Your task to perform on an android device: turn off javascript in the chrome app Image 0: 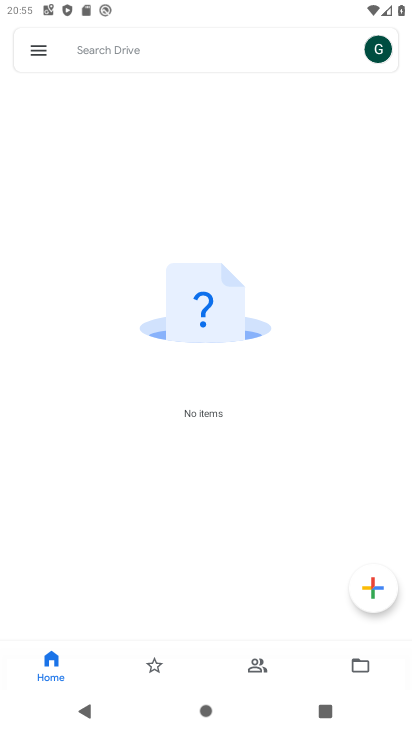
Step 0: press home button
Your task to perform on an android device: turn off javascript in the chrome app Image 1: 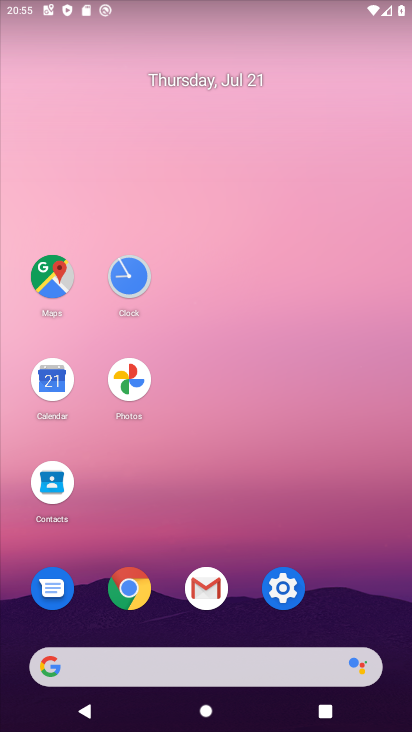
Step 1: click (130, 592)
Your task to perform on an android device: turn off javascript in the chrome app Image 2: 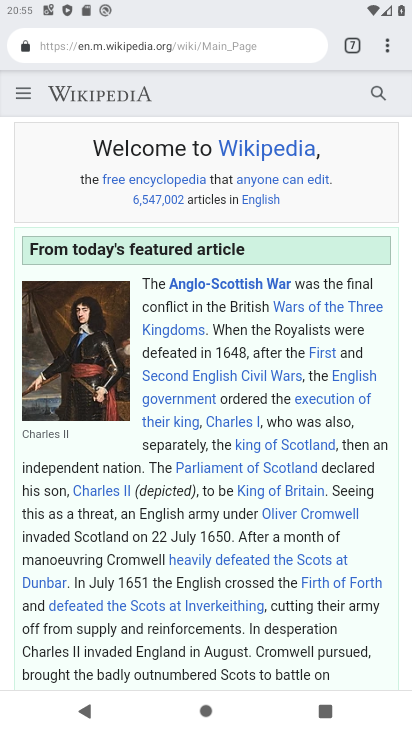
Step 2: click (389, 40)
Your task to perform on an android device: turn off javascript in the chrome app Image 3: 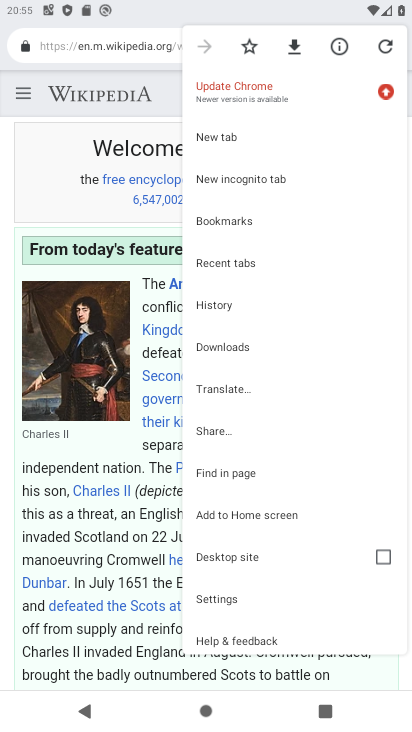
Step 3: click (217, 597)
Your task to perform on an android device: turn off javascript in the chrome app Image 4: 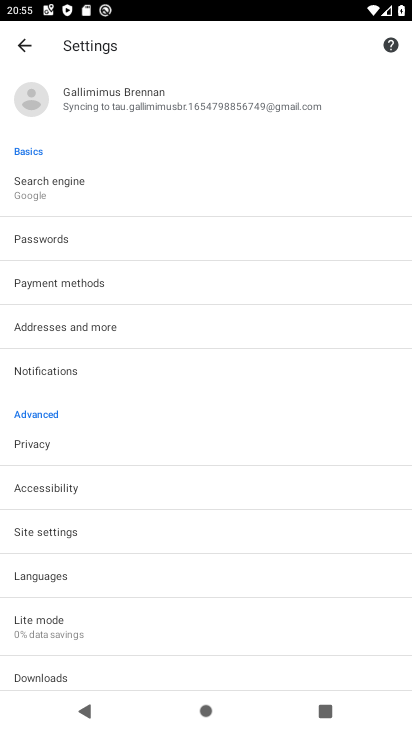
Step 4: click (57, 525)
Your task to perform on an android device: turn off javascript in the chrome app Image 5: 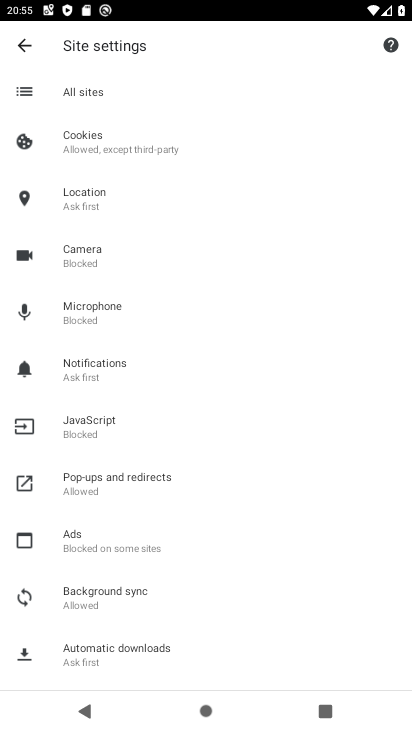
Step 5: click (93, 419)
Your task to perform on an android device: turn off javascript in the chrome app Image 6: 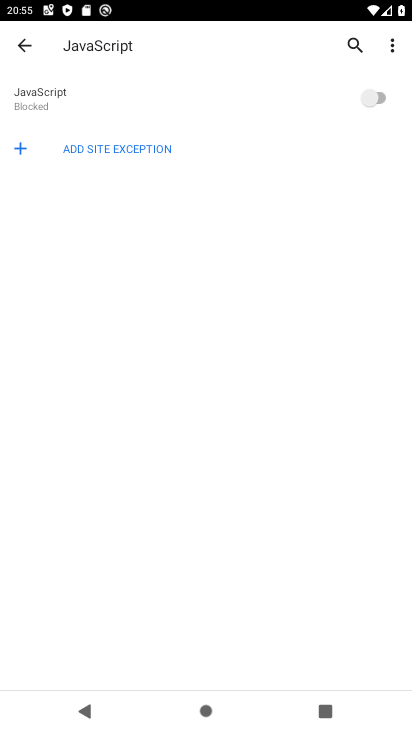
Step 6: task complete